Your task to perform on an android device: When is my next meeting? Image 0: 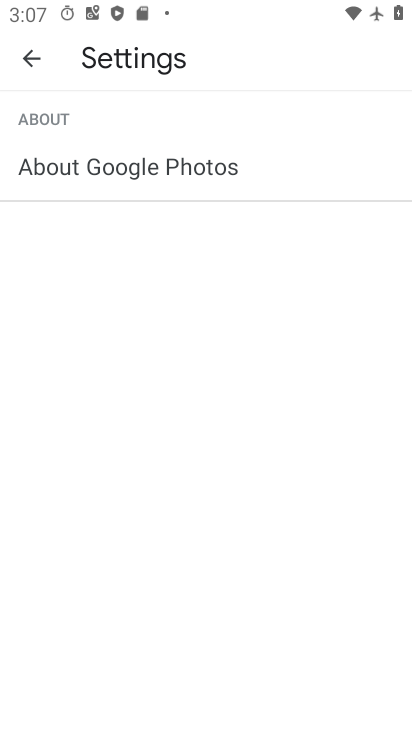
Step 0: press back button
Your task to perform on an android device: When is my next meeting? Image 1: 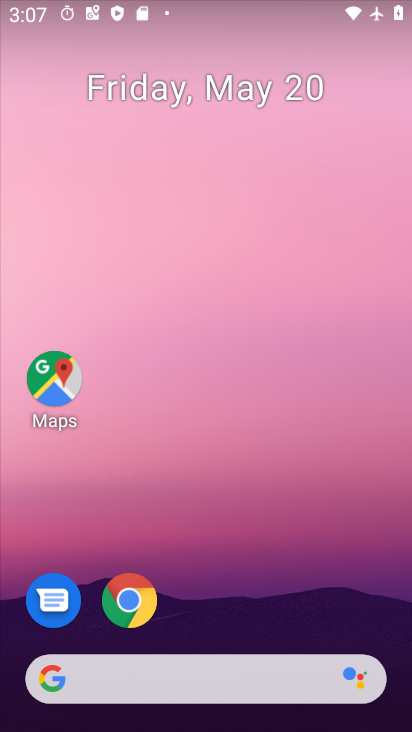
Step 1: drag from (279, 585) to (273, 1)
Your task to perform on an android device: When is my next meeting? Image 2: 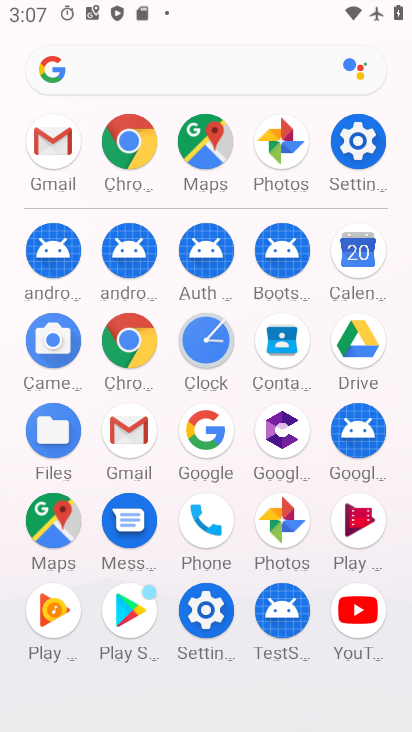
Step 2: drag from (2, 569) to (32, 303)
Your task to perform on an android device: When is my next meeting? Image 3: 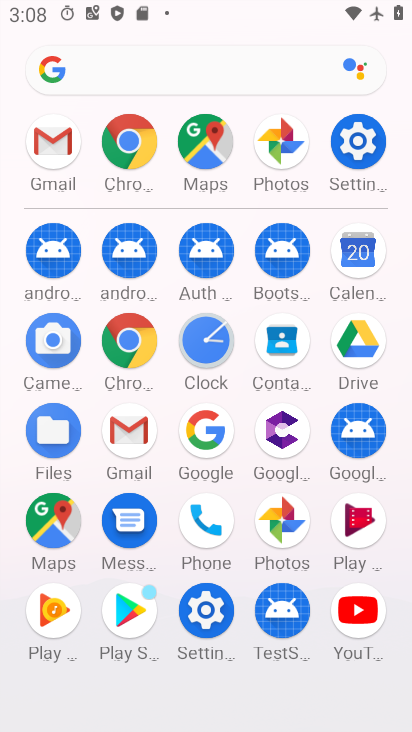
Step 3: click (355, 247)
Your task to perform on an android device: When is my next meeting? Image 4: 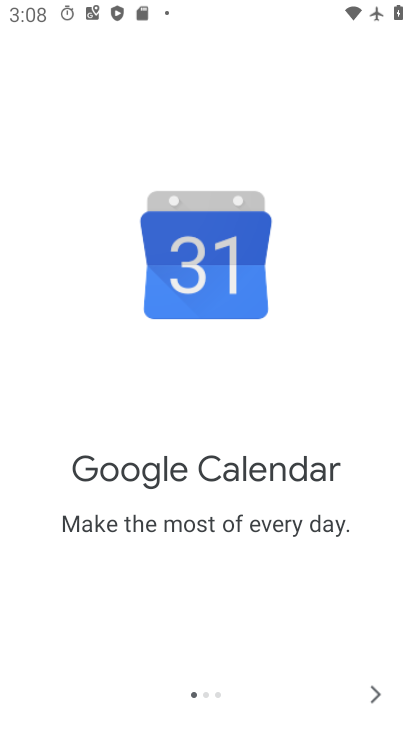
Step 4: click (372, 680)
Your task to perform on an android device: When is my next meeting? Image 5: 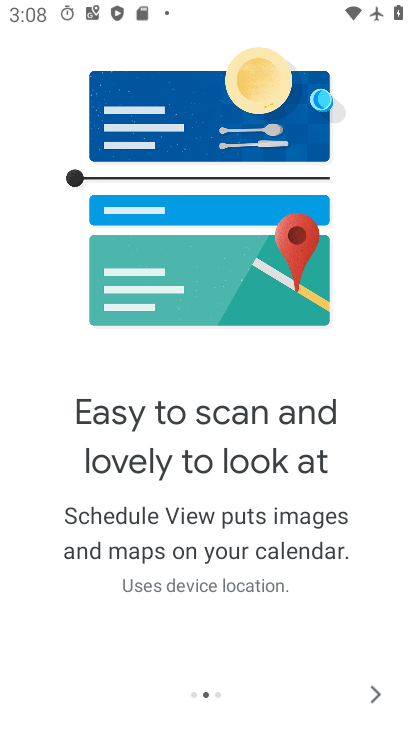
Step 5: click (367, 695)
Your task to perform on an android device: When is my next meeting? Image 6: 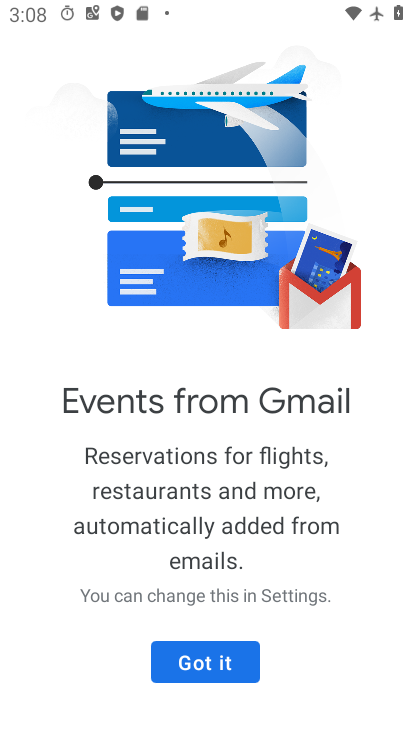
Step 6: click (232, 655)
Your task to perform on an android device: When is my next meeting? Image 7: 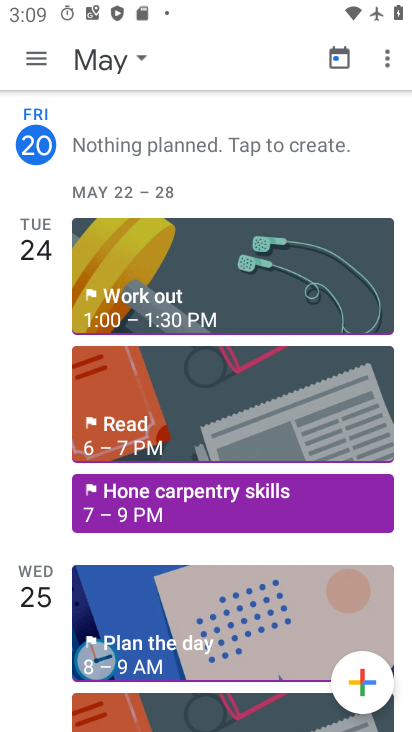
Step 7: click (28, 46)
Your task to perform on an android device: When is my next meeting? Image 8: 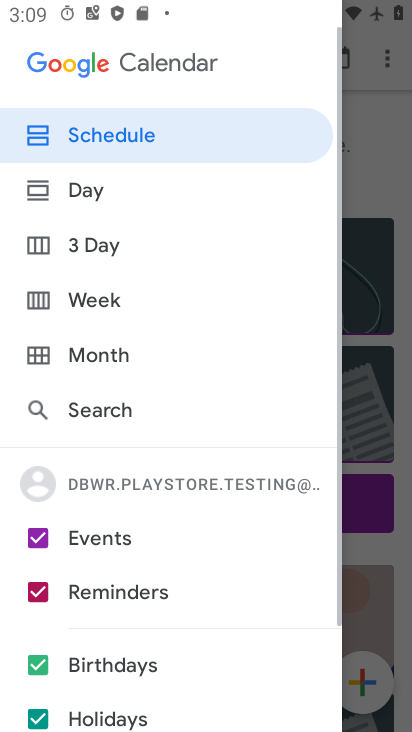
Step 8: click (110, 130)
Your task to perform on an android device: When is my next meeting? Image 9: 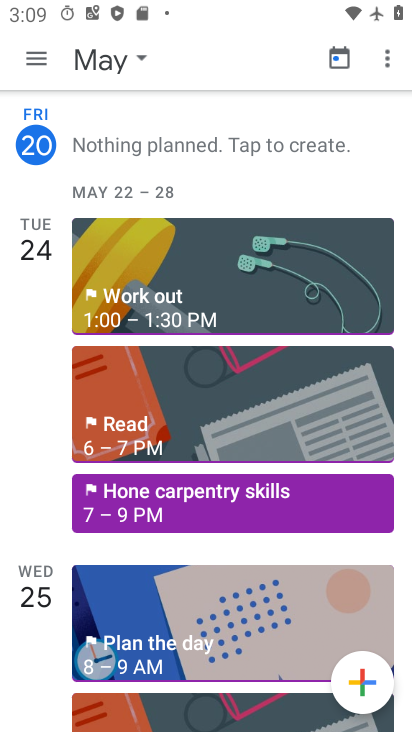
Step 9: task complete